Your task to perform on an android device: turn notification dots off Image 0: 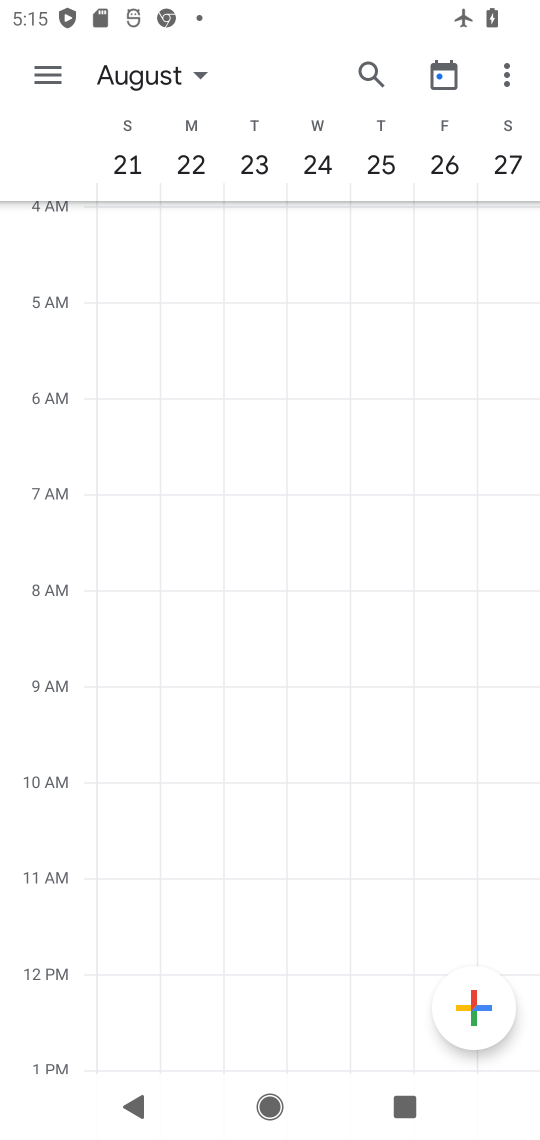
Step 0: press home button
Your task to perform on an android device: turn notification dots off Image 1: 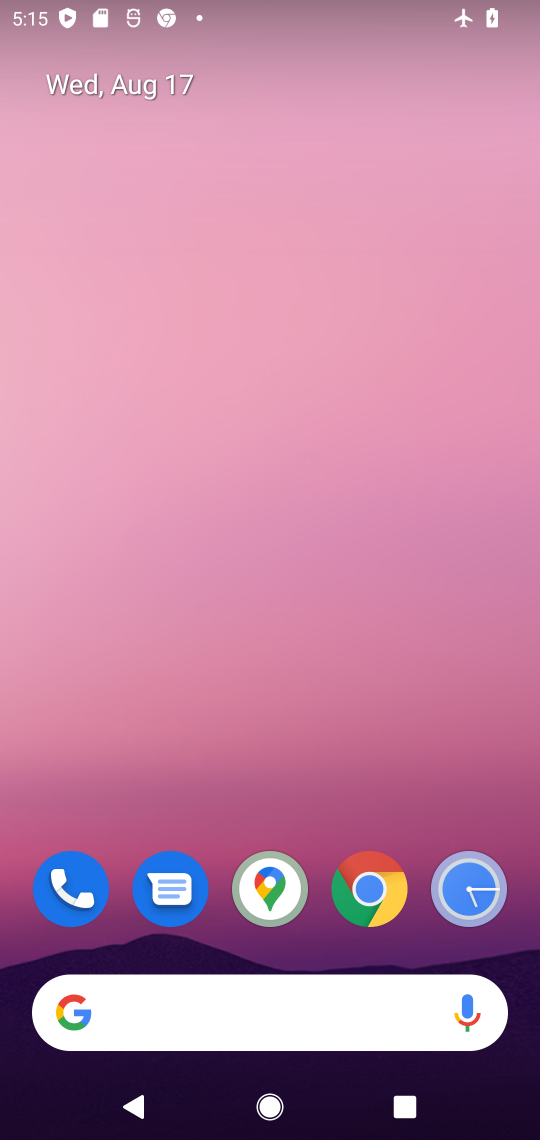
Step 1: drag from (323, 807) to (342, 155)
Your task to perform on an android device: turn notification dots off Image 2: 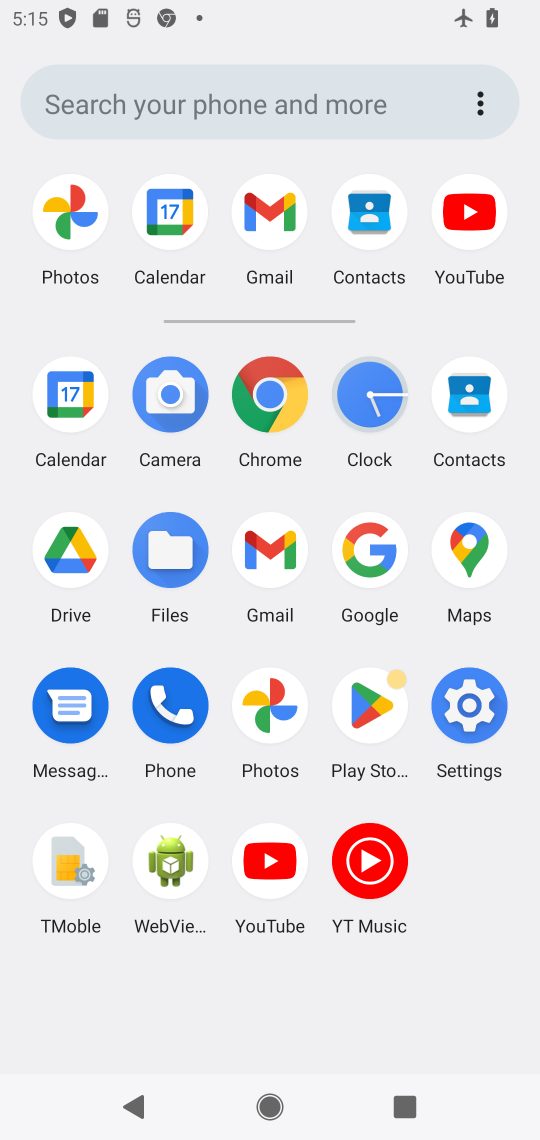
Step 2: click (472, 705)
Your task to perform on an android device: turn notification dots off Image 3: 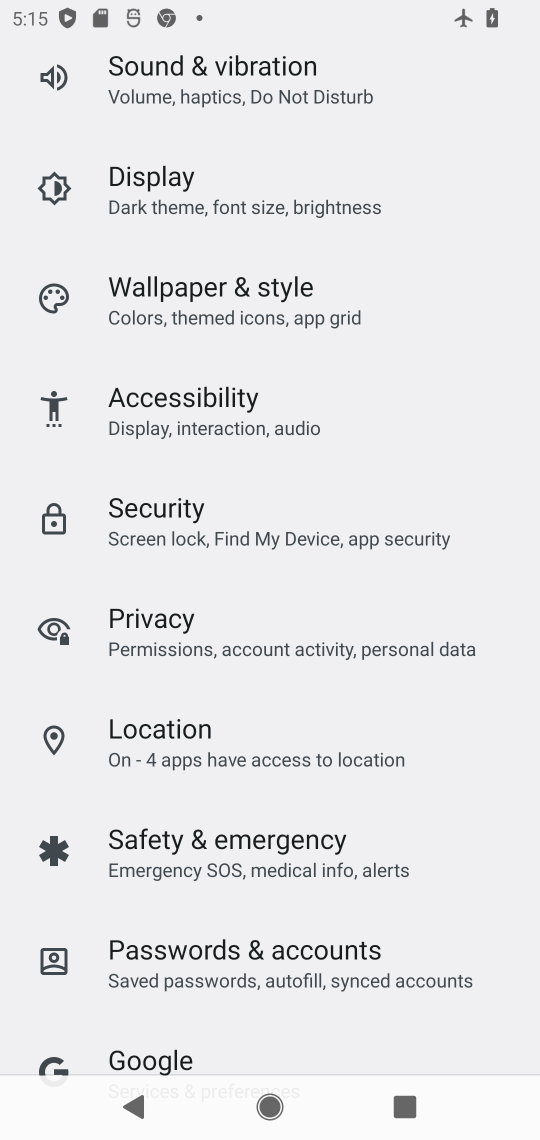
Step 3: drag from (384, 383) to (245, 1117)
Your task to perform on an android device: turn notification dots off Image 4: 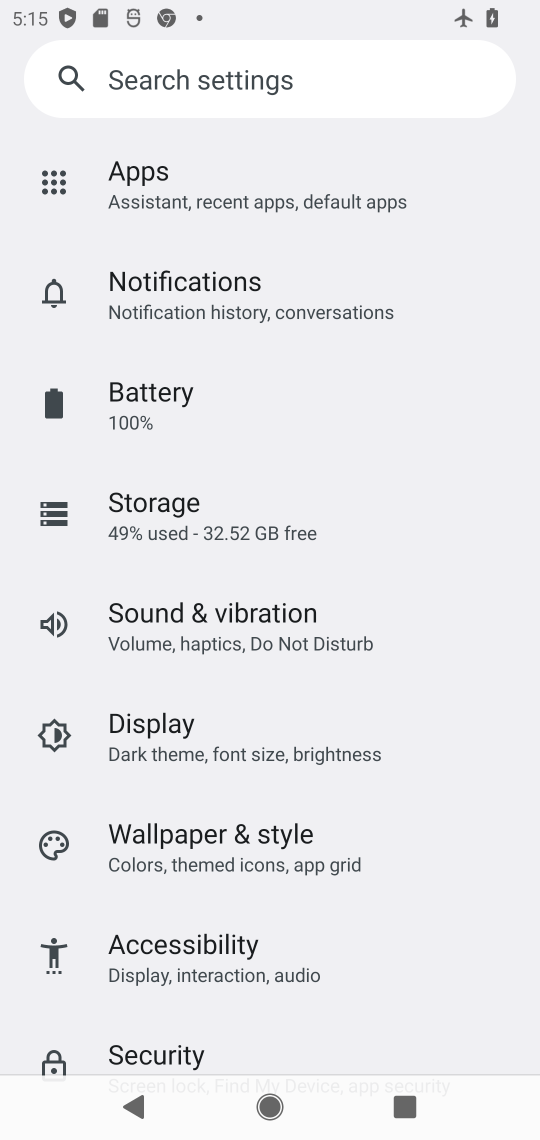
Step 4: click (184, 267)
Your task to perform on an android device: turn notification dots off Image 5: 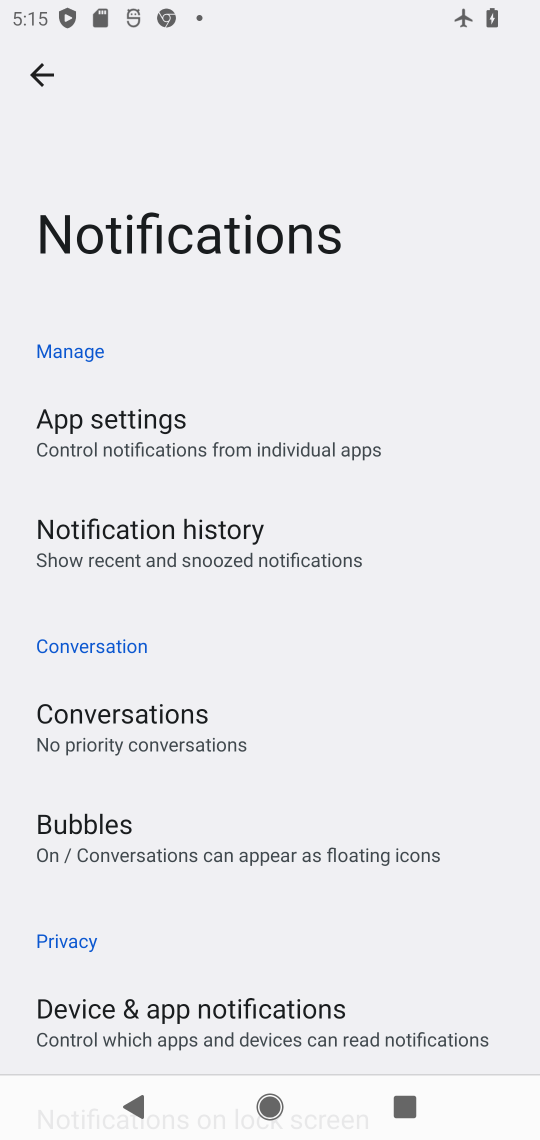
Step 5: drag from (306, 774) to (309, 402)
Your task to perform on an android device: turn notification dots off Image 6: 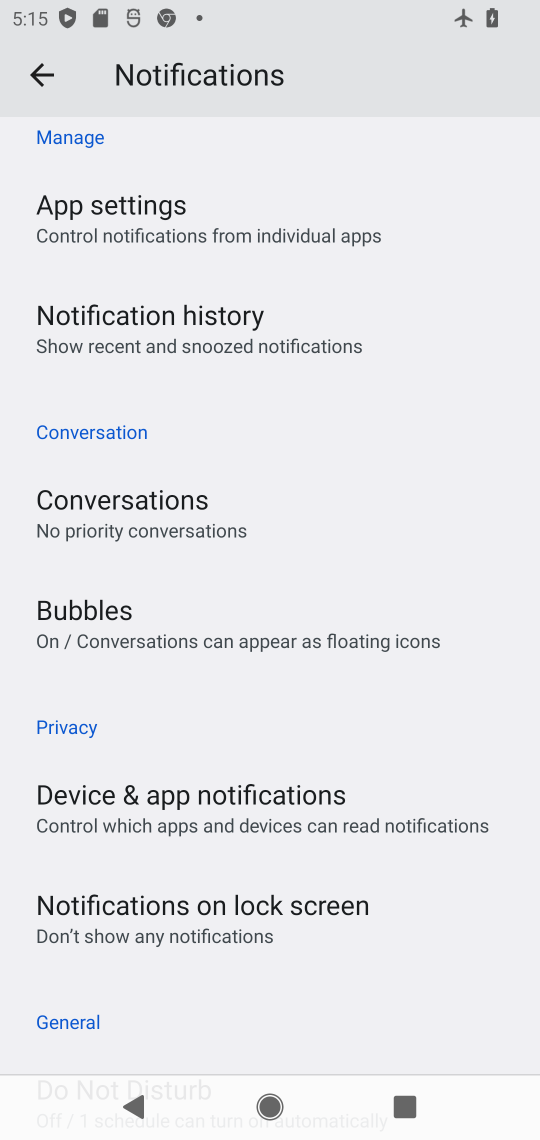
Step 6: drag from (368, 971) to (344, 412)
Your task to perform on an android device: turn notification dots off Image 7: 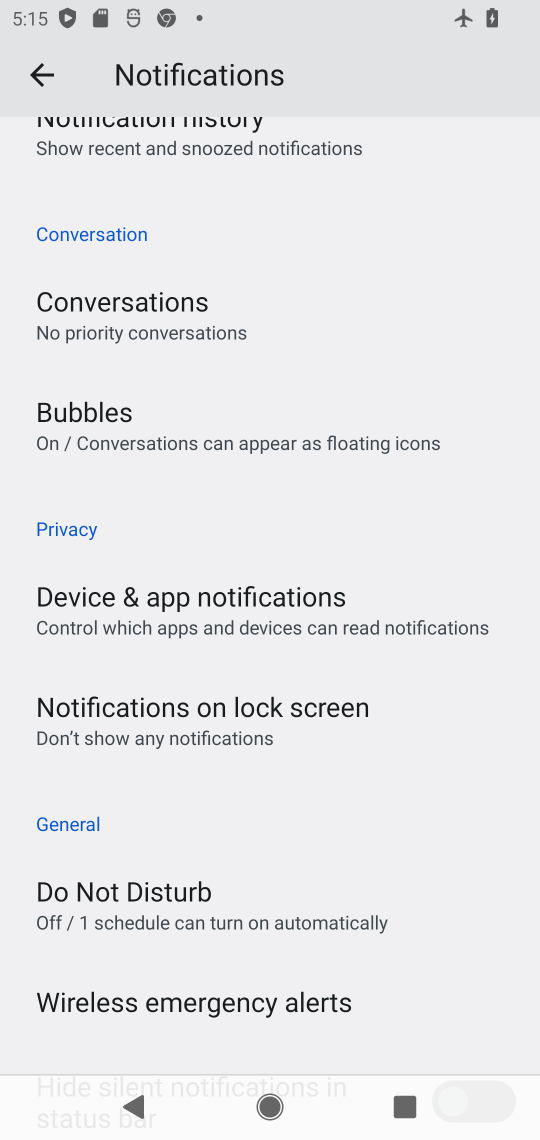
Step 7: drag from (395, 977) to (322, 616)
Your task to perform on an android device: turn notification dots off Image 8: 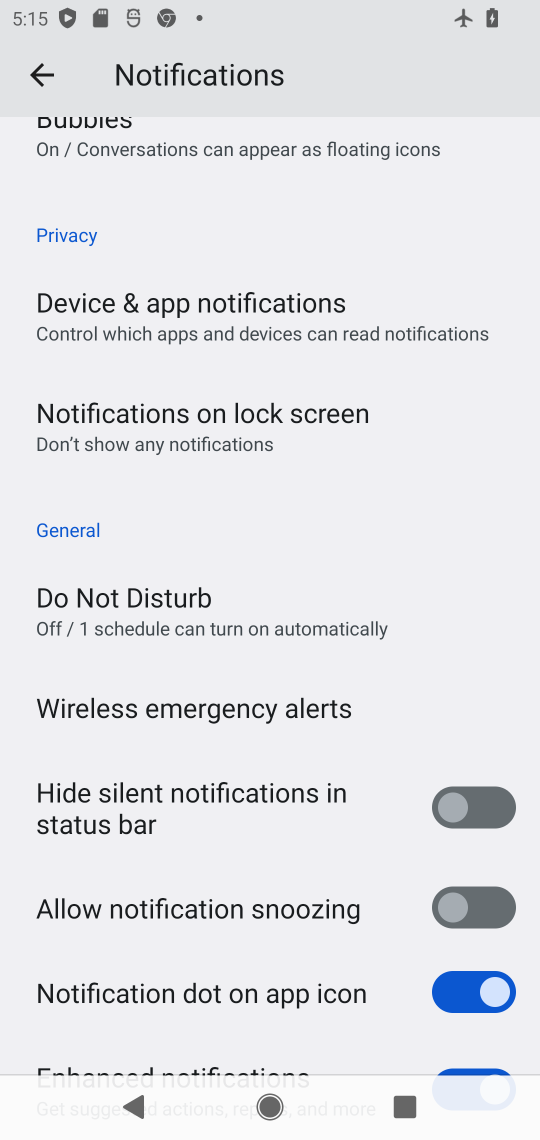
Step 8: drag from (279, 534) to (267, 243)
Your task to perform on an android device: turn notification dots off Image 9: 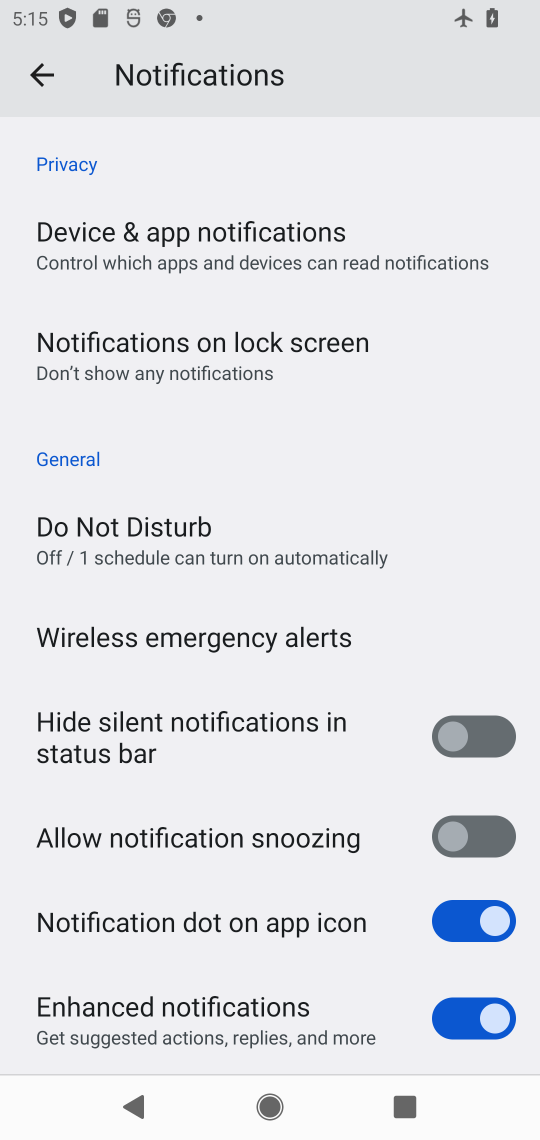
Step 9: click (487, 919)
Your task to perform on an android device: turn notification dots off Image 10: 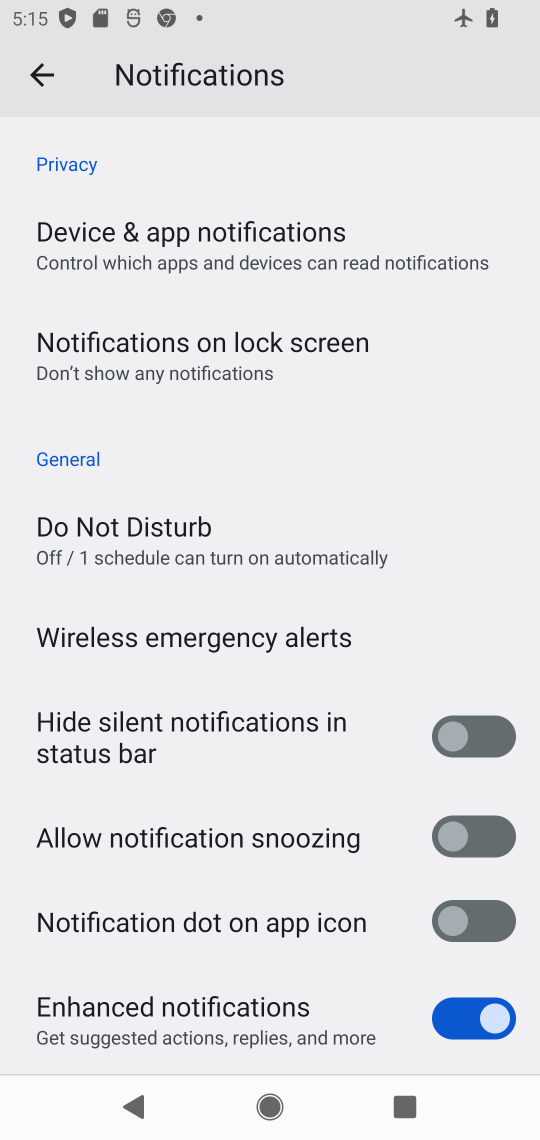
Step 10: task complete